Your task to perform on an android device: Open Google Image 0: 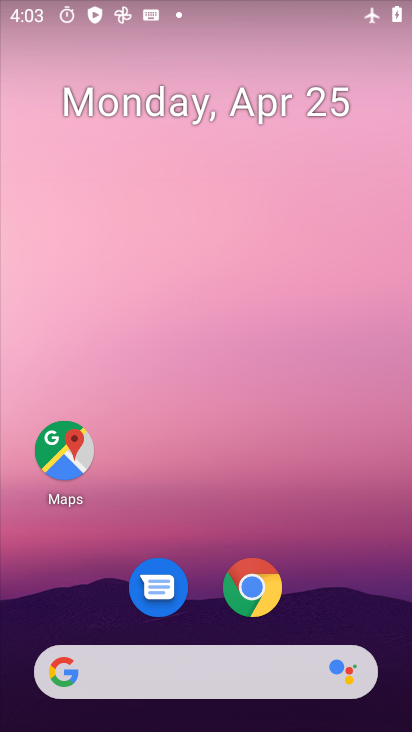
Step 0: drag from (332, 592) to (264, 14)
Your task to perform on an android device: Open Google Image 1: 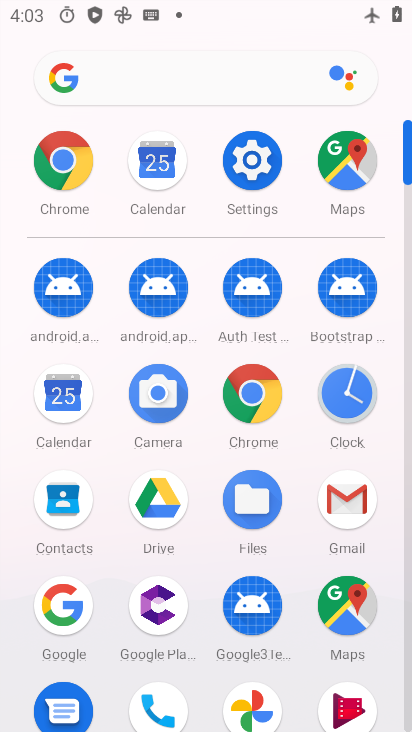
Step 1: click (70, 597)
Your task to perform on an android device: Open Google Image 2: 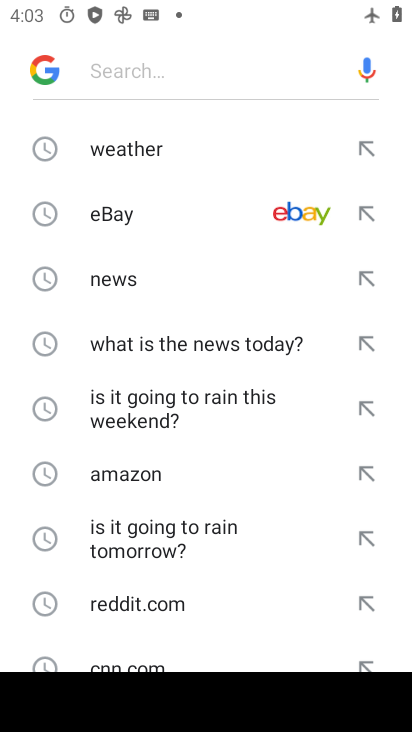
Step 2: task complete